Your task to perform on an android device: turn on javascript in the chrome app Image 0: 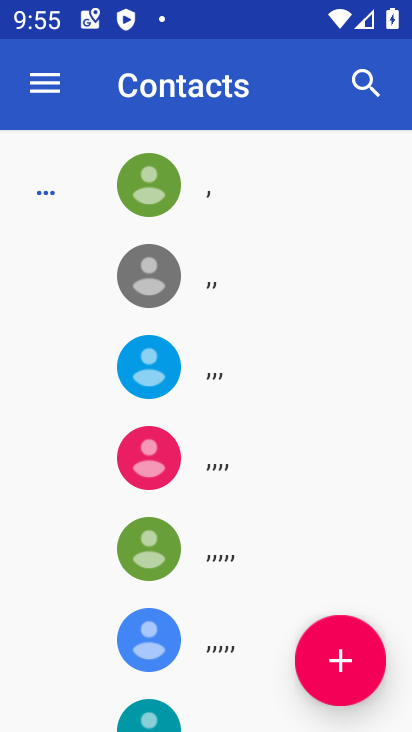
Step 0: press home button
Your task to perform on an android device: turn on javascript in the chrome app Image 1: 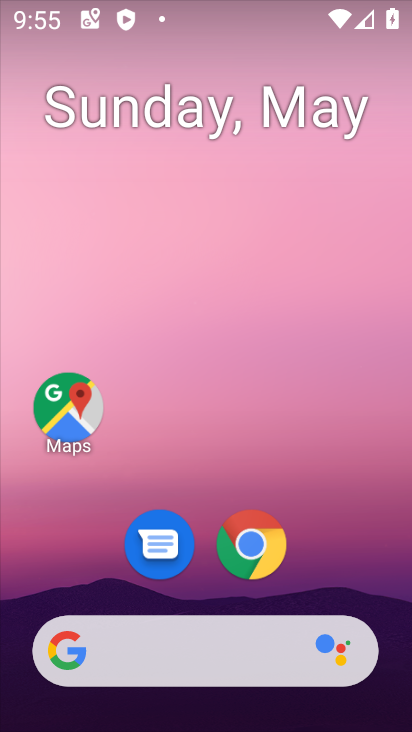
Step 1: drag from (358, 550) to (346, 0)
Your task to perform on an android device: turn on javascript in the chrome app Image 2: 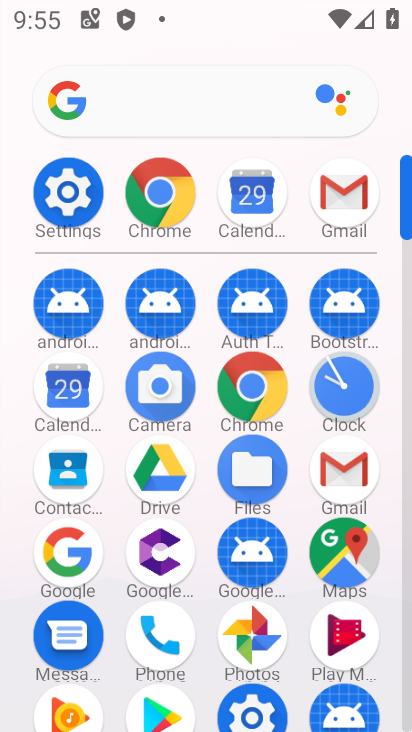
Step 2: click (174, 196)
Your task to perform on an android device: turn on javascript in the chrome app Image 3: 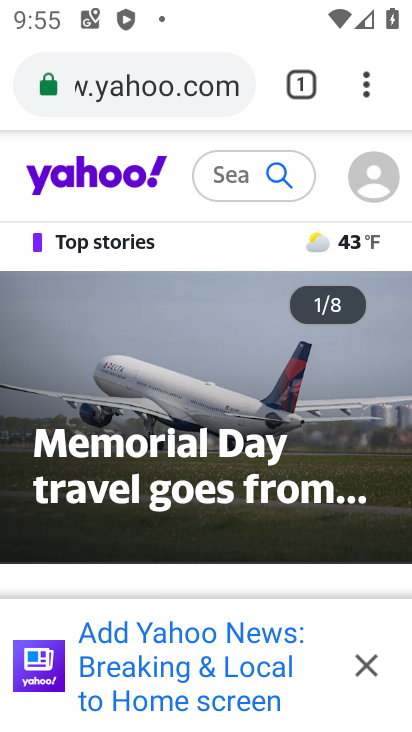
Step 3: drag from (373, 84) to (87, 600)
Your task to perform on an android device: turn on javascript in the chrome app Image 4: 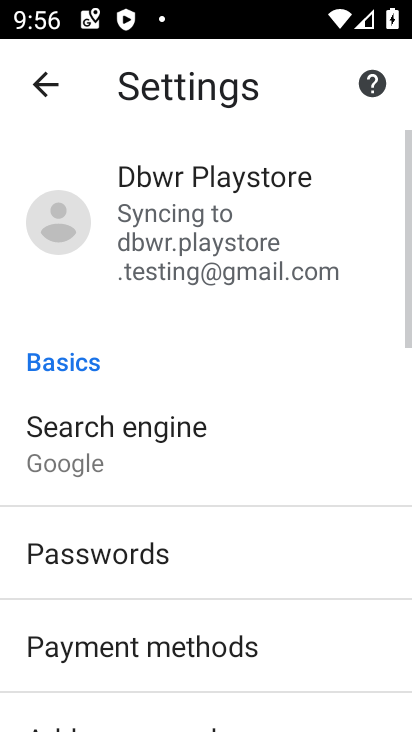
Step 4: drag from (132, 604) to (174, 106)
Your task to perform on an android device: turn on javascript in the chrome app Image 5: 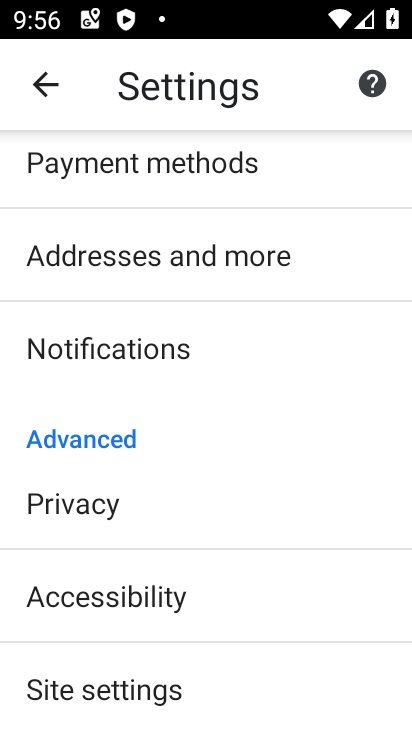
Step 5: drag from (156, 659) to (199, 150)
Your task to perform on an android device: turn on javascript in the chrome app Image 6: 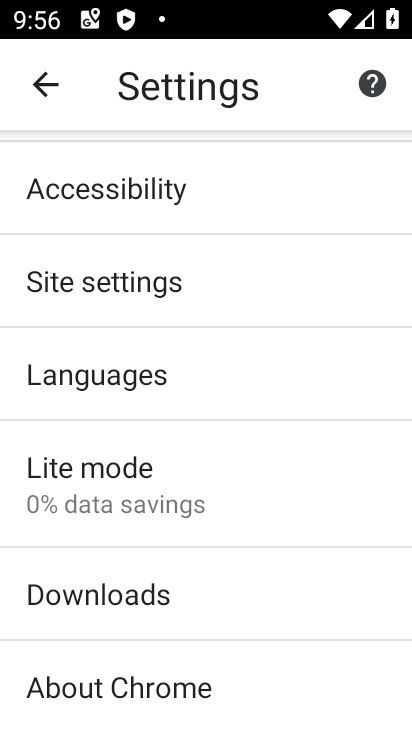
Step 6: click (178, 283)
Your task to perform on an android device: turn on javascript in the chrome app Image 7: 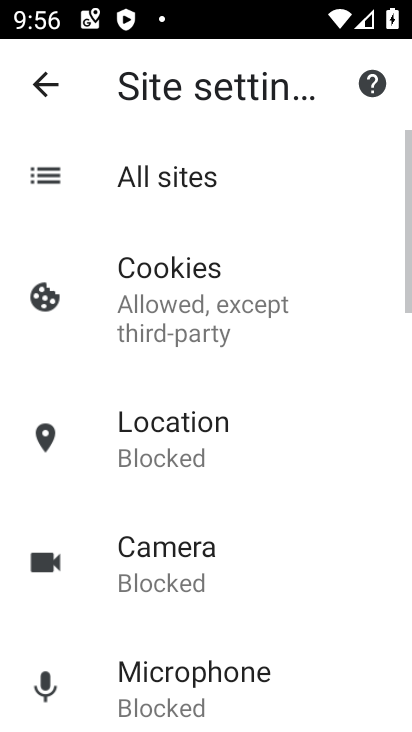
Step 7: drag from (234, 647) to (277, 142)
Your task to perform on an android device: turn on javascript in the chrome app Image 8: 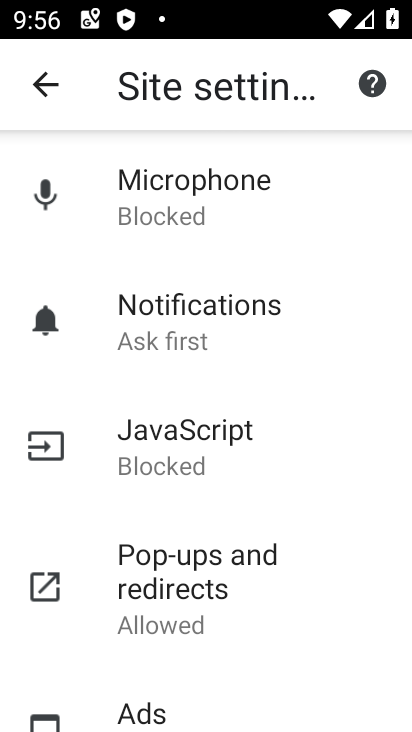
Step 8: click (193, 432)
Your task to perform on an android device: turn on javascript in the chrome app Image 9: 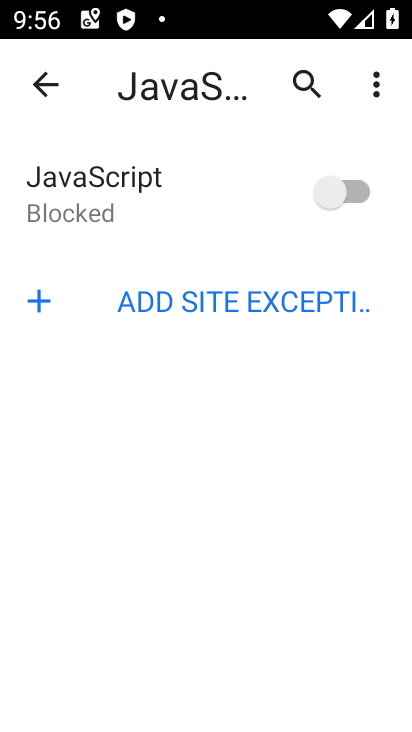
Step 9: click (330, 198)
Your task to perform on an android device: turn on javascript in the chrome app Image 10: 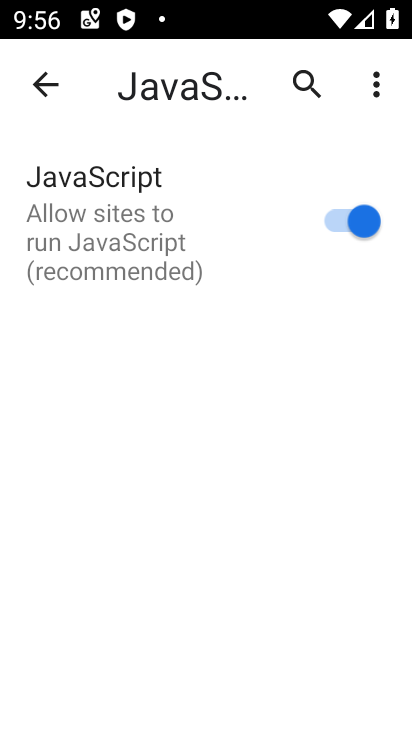
Step 10: task complete